Your task to perform on an android device: check battery use Image 0: 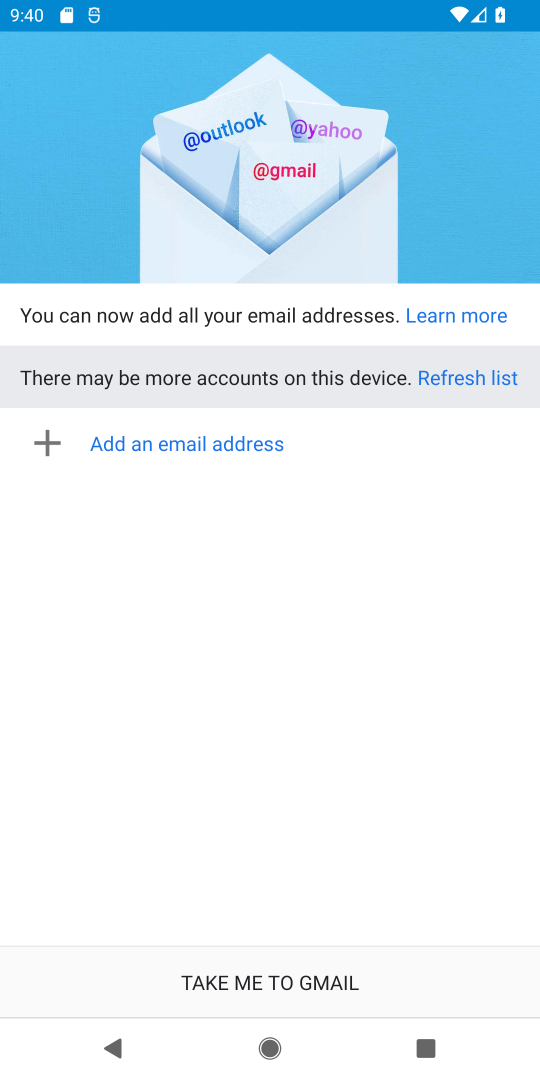
Step 0: press home button
Your task to perform on an android device: check battery use Image 1: 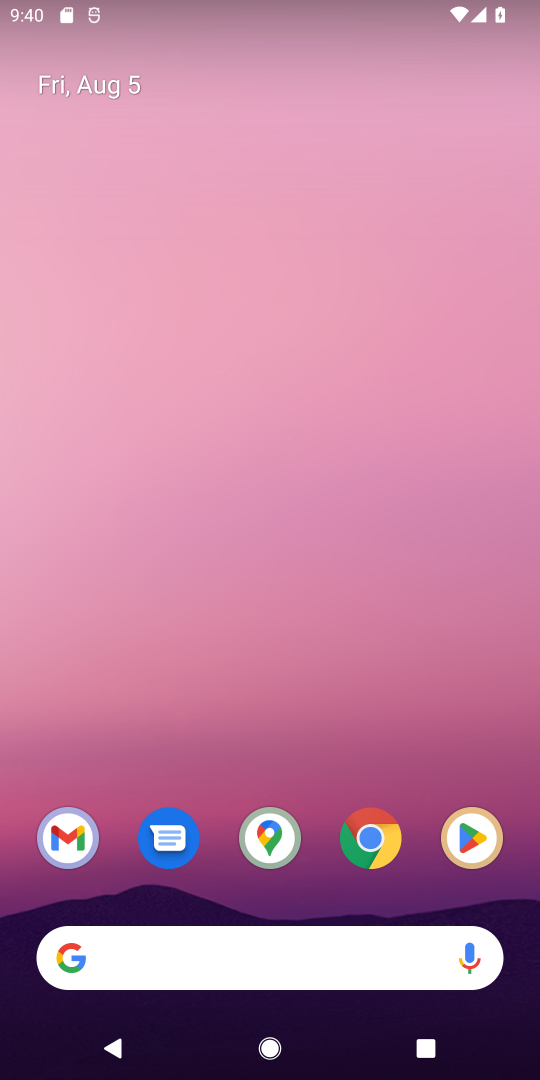
Step 1: drag from (156, 737) to (200, 240)
Your task to perform on an android device: check battery use Image 2: 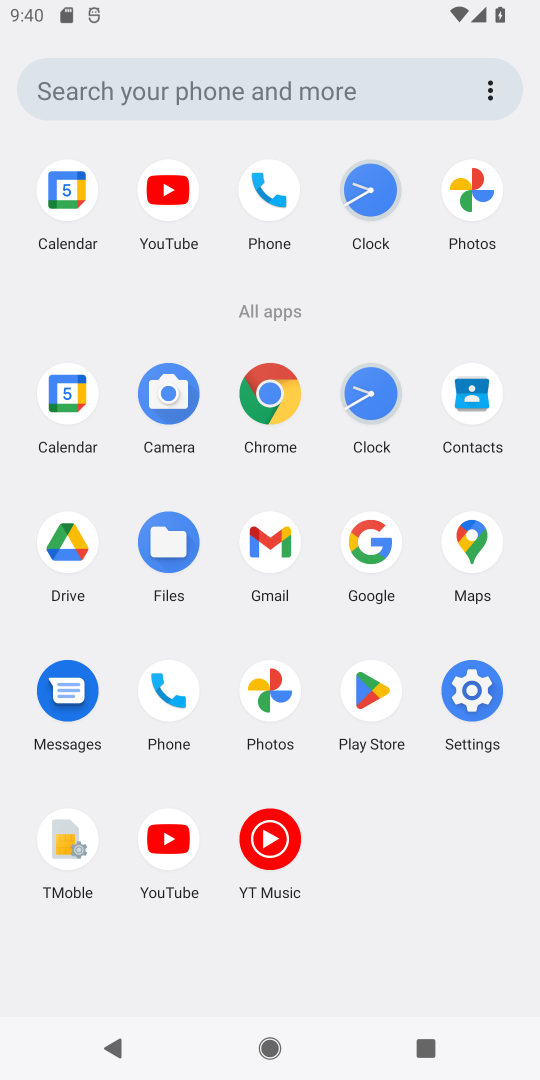
Step 2: click (463, 683)
Your task to perform on an android device: check battery use Image 3: 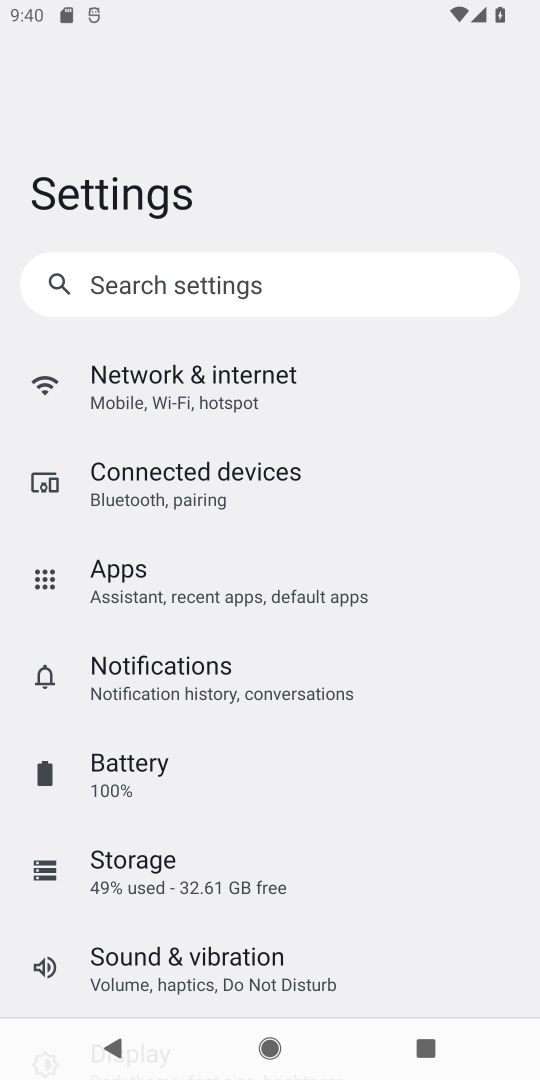
Step 3: click (134, 758)
Your task to perform on an android device: check battery use Image 4: 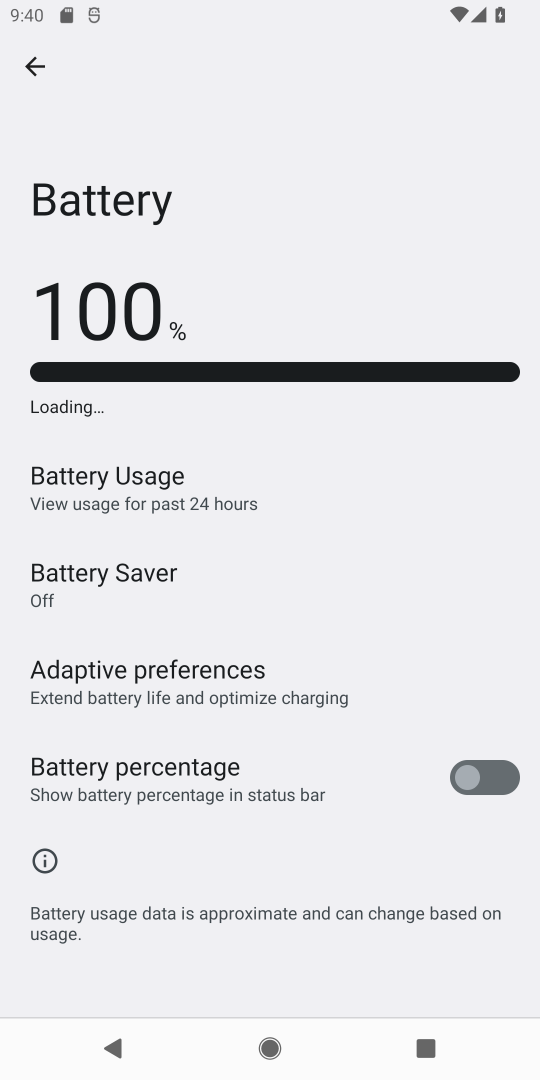
Step 4: click (156, 480)
Your task to perform on an android device: check battery use Image 5: 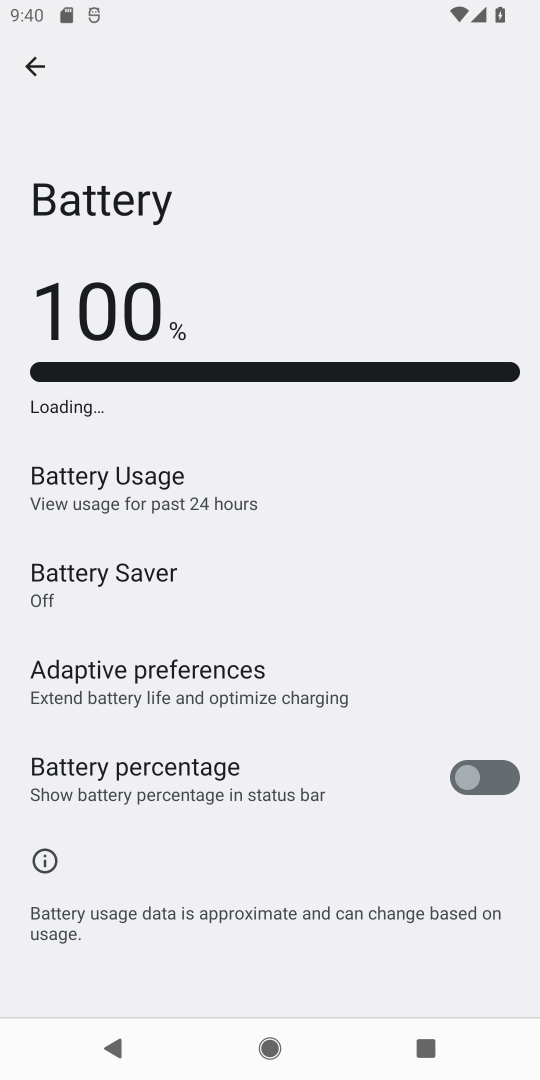
Step 5: task complete